Your task to perform on an android device: Go to network settings Image 0: 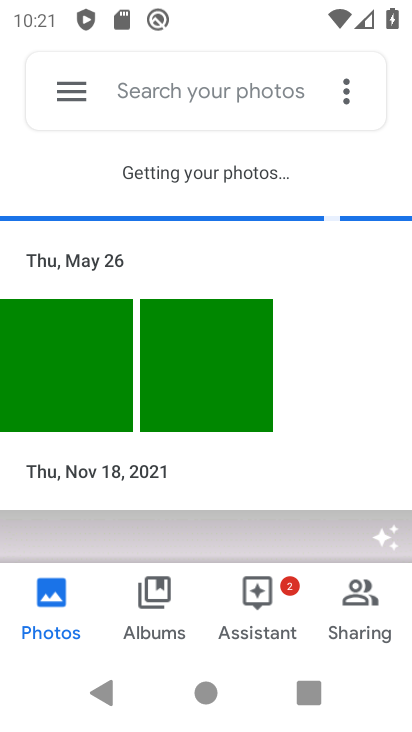
Step 0: press home button
Your task to perform on an android device: Go to network settings Image 1: 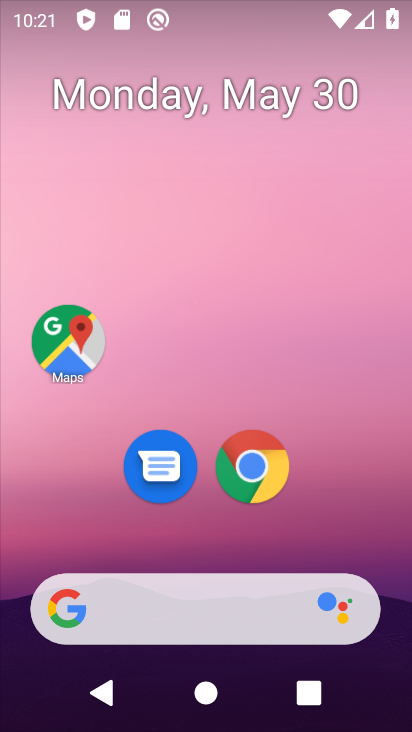
Step 1: drag from (171, 728) to (162, 204)
Your task to perform on an android device: Go to network settings Image 2: 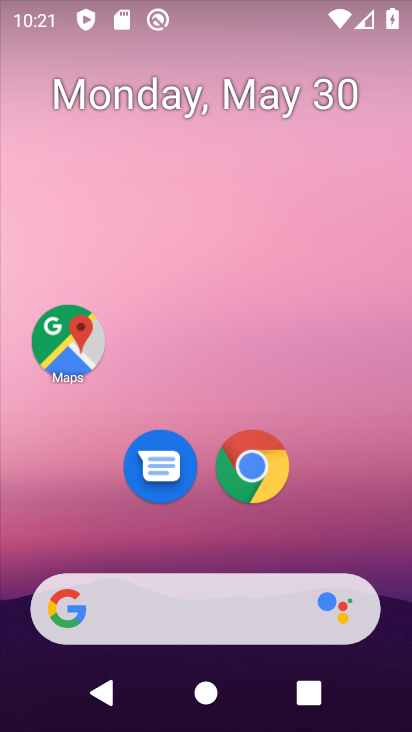
Step 2: drag from (167, 720) to (106, 92)
Your task to perform on an android device: Go to network settings Image 3: 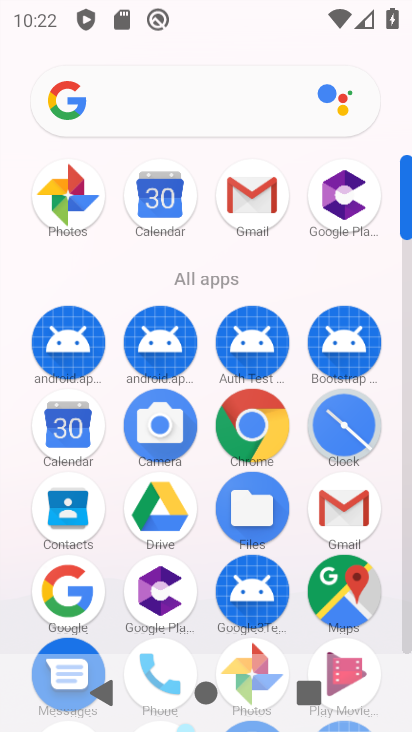
Step 3: drag from (108, 456) to (122, 217)
Your task to perform on an android device: Go to network settings Image 4: 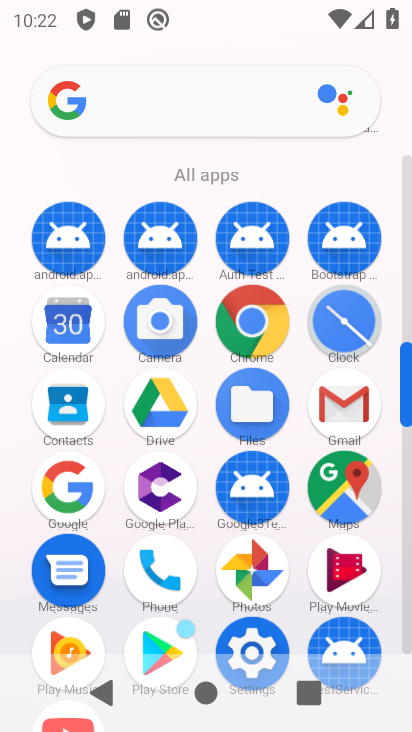
Step 4: click (244, 640)
Your task to perform on an android device: Go to network settings Image 5: 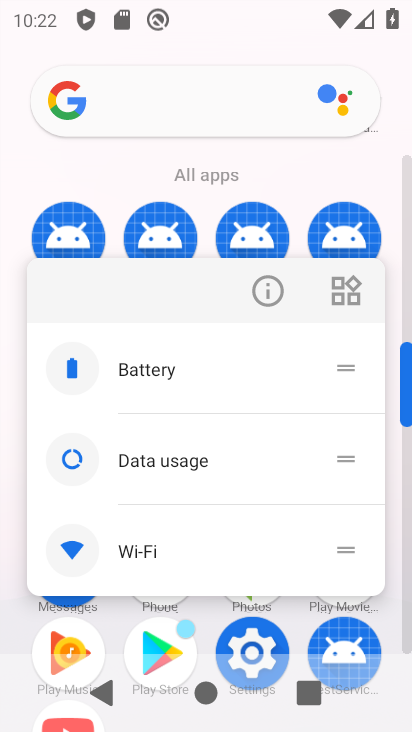
Step 5: click (238, 636)
Your task to perform on an android device: Go to network settings Image 6: 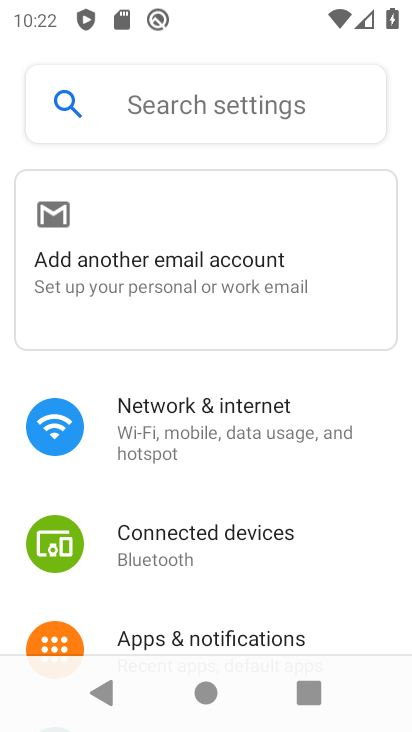
Step 6: click (295, 444)
Your task to perform on an android device: Go to network settings Image 7: 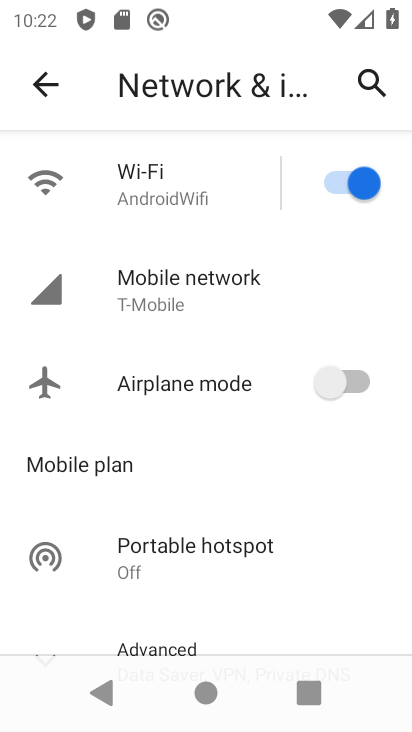
Step 7: click (213, 316)
Your task to perform on an android device: Go to network settings Image 8: 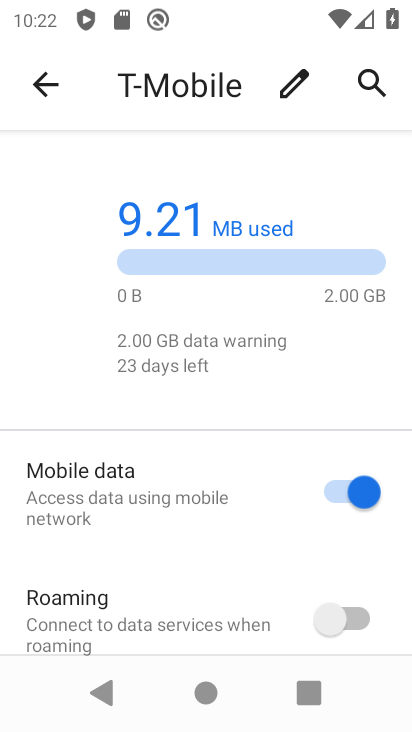
Step 8: drag from (222, 612) to (245, 238)
Your task to perform on an android device: Go to network settings Image 9: 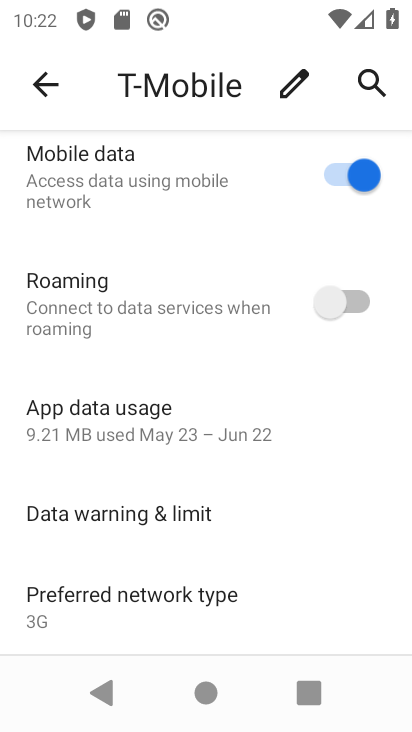
Step 9: drag from (193, 625) to (156, 277)
Your task to perform on an android device: Go to network settings Image 10: 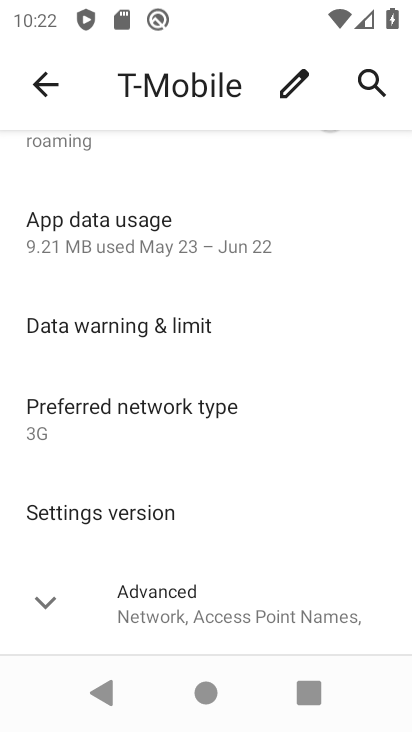
Step 10: click (203, 619)
Your task to perform on an android device: Go to network settings Image 11: 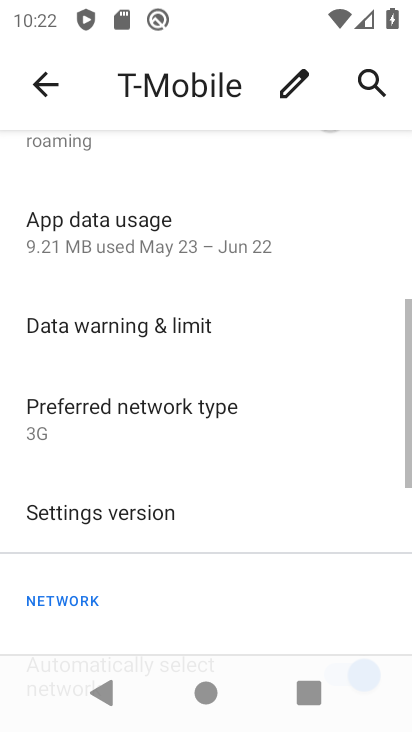
Step 11: task complete